Your task to perform on an android device: turn notification dots off Image 0: 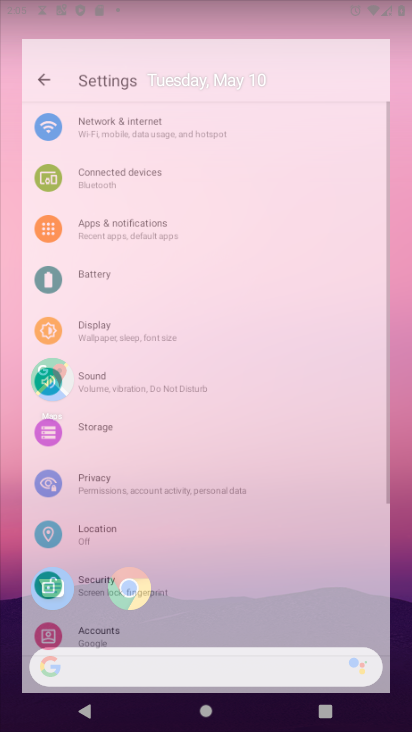
Step 0: drag from (264, 636) to (298, 251)
Your task to perform on an android device: turn notification dots off Image 1: 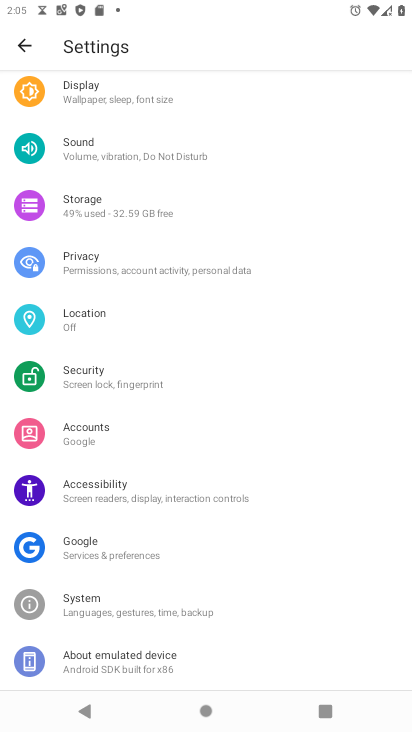
Step 1: drag from (240, 234) to (256, 512)
Your task to perform on an android device: turn notification dots off Image 2: 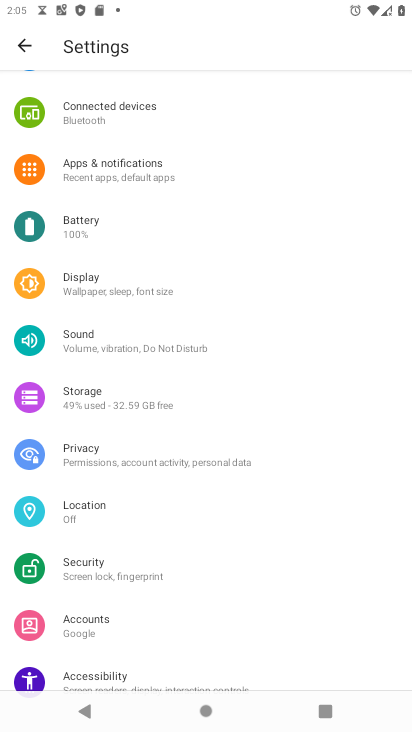
Step 2: drag from (193, 151) to (193, 537)
Your task to perform on an android device: turn notification dots off Image 3: 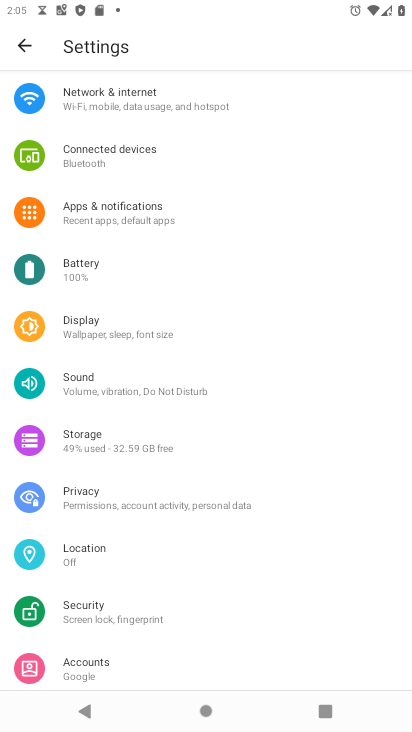
Step 3: click (26, 50)
Your task to perform on an android device: turn notification dots off Image 4: 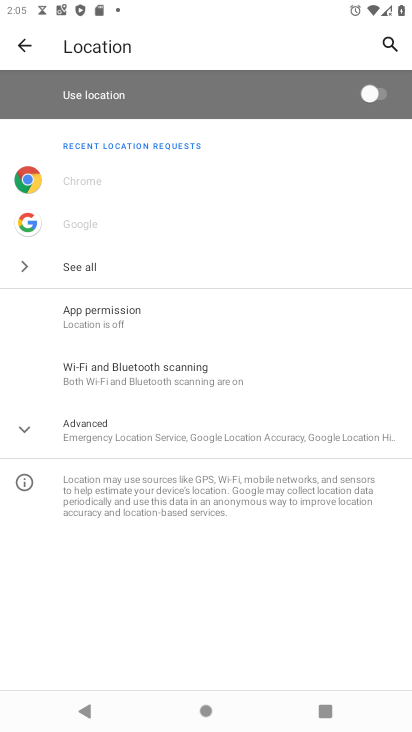
Step 4: click (19, 45)
Your task to perform on an android device: turn notification dots off Image 5: 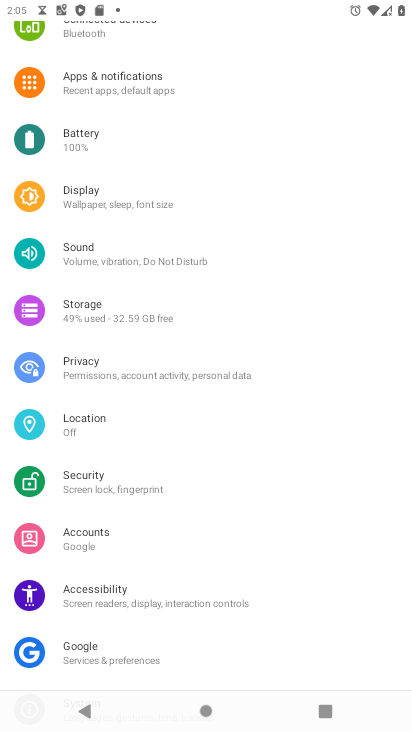
Step 5: drag from (224, 108) to (210, 631)
Your task to perform on an android device: turn notification dots off Image 6: 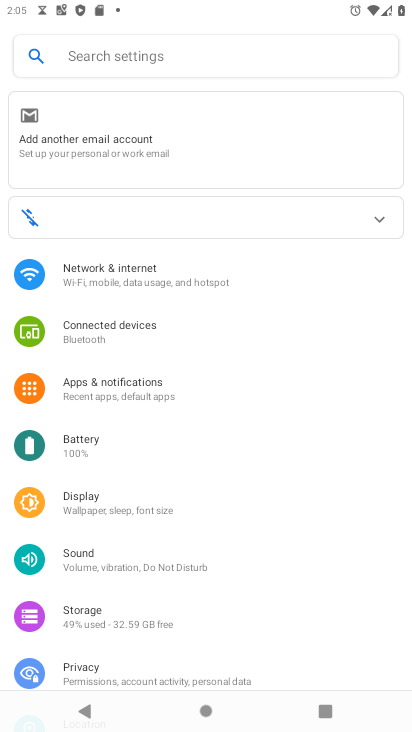
Step 6: click (212, 41)
Your task to perform on an android device: turn notification dots off Image 7: 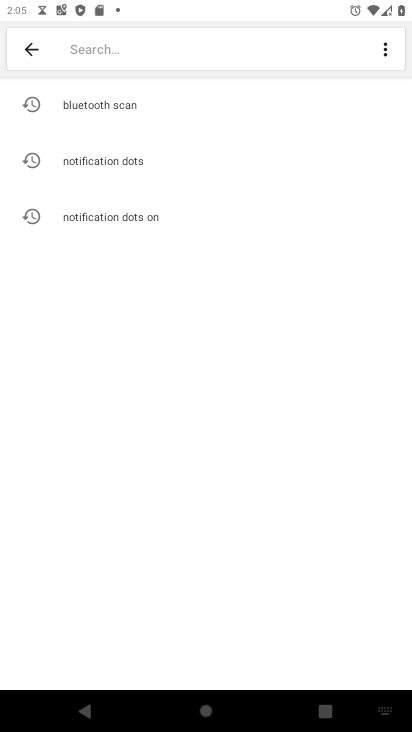
Step 7: click (157, 164)
Your task to perform on an android device: turn notification dots off Image 8: 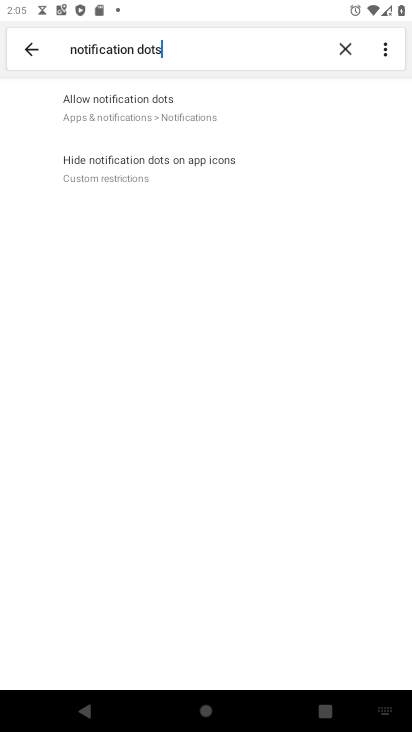
Step 8: click (171, 98)
Your task to perform on an android device: turn notification dots off Image 9: 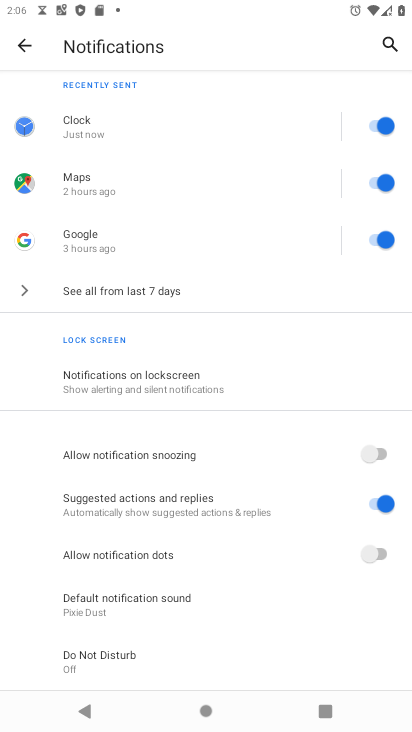
Step 9: task complete